Your task to perform on an android device: Add logitech g pro to the cart on costco.com, then select checkout. Image 0: 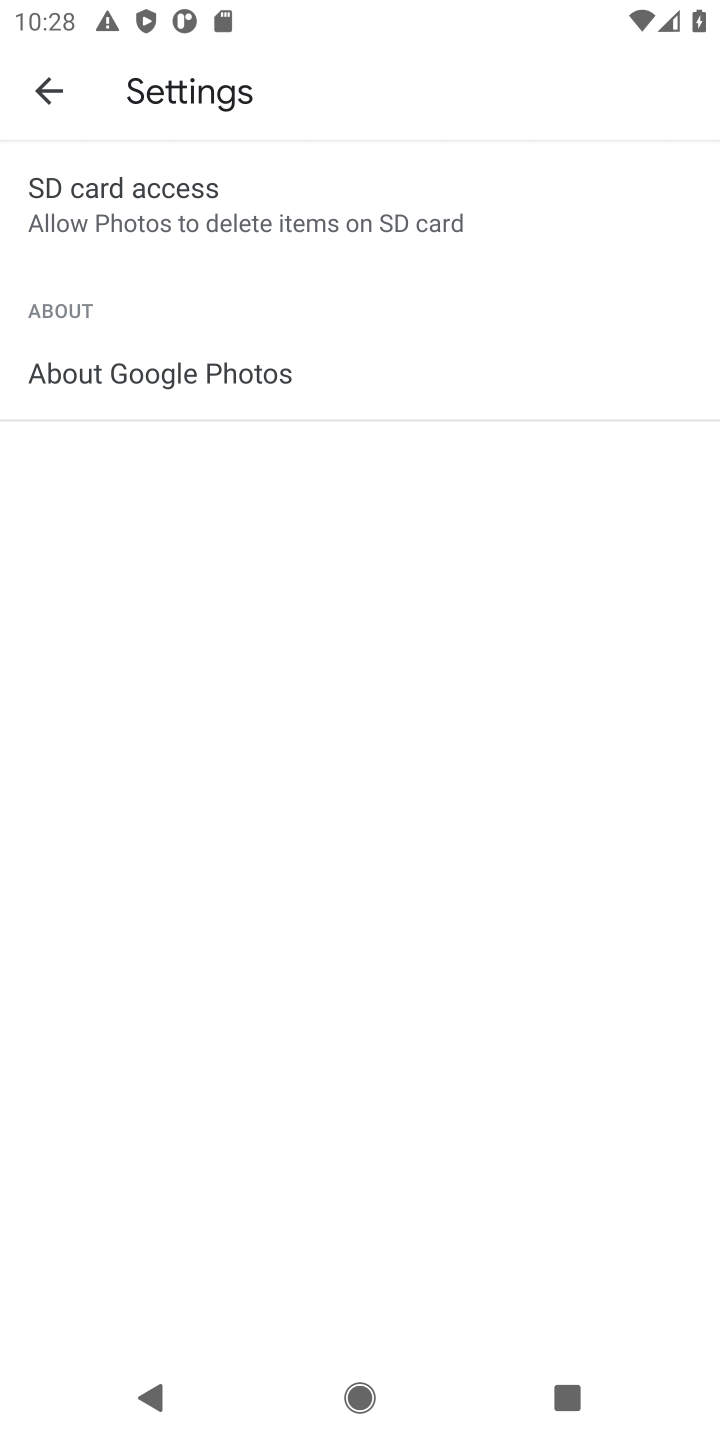
Step 0: press home button
Your task to perform on an android device: Add logitech g pro to the cart on costco.com, then select checkout. Image 1: 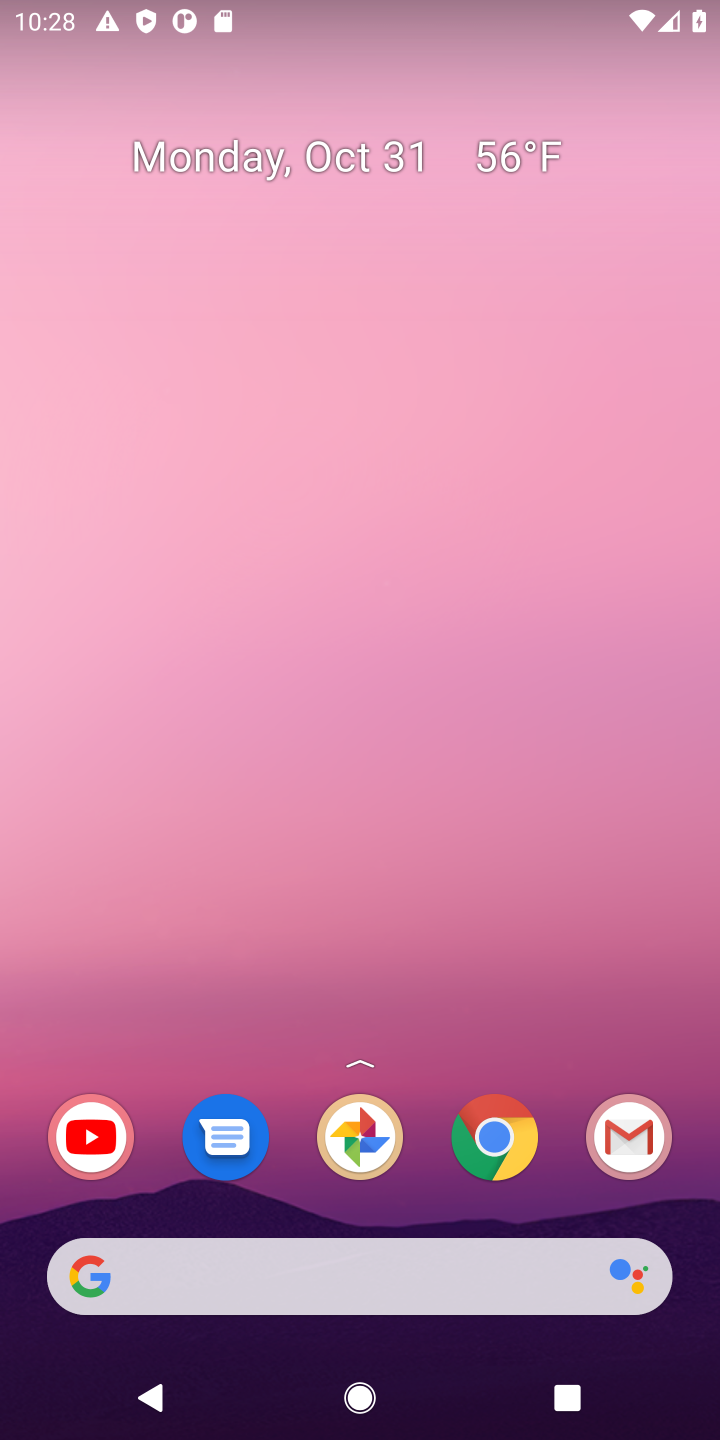
Step 1: click (496, 1140)
Your task to perform on an android device: Add logitech g pro to the cart on costco.com, then select checkout. Image 2: 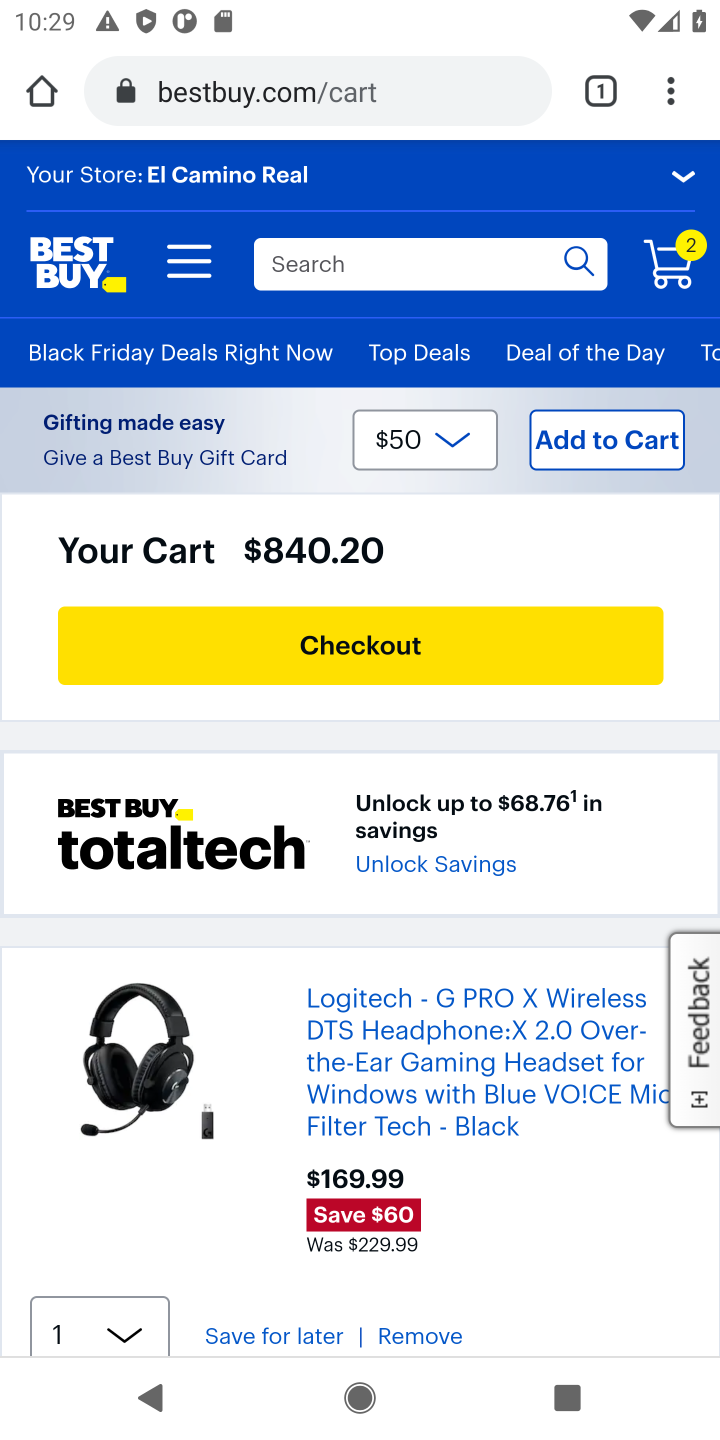
Step 2: click (313, 97)
Your task to perform on an android device: Add logitech g pro to the cart on costco.com, then select checkout. Image 3: 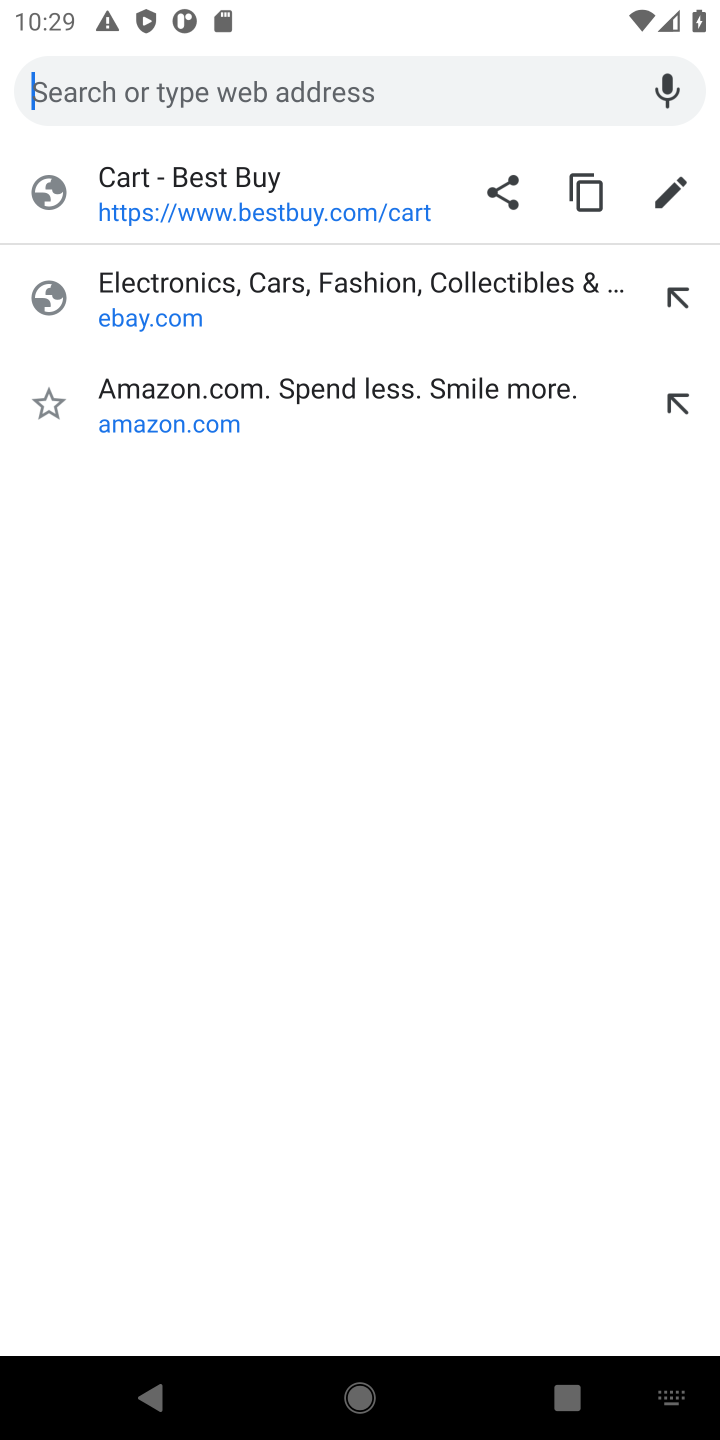
Step 3: type "costco.com"
Your task to perform on an android device: Add logitech g pro to the cart on costco.com, then select checkout. Image 4: 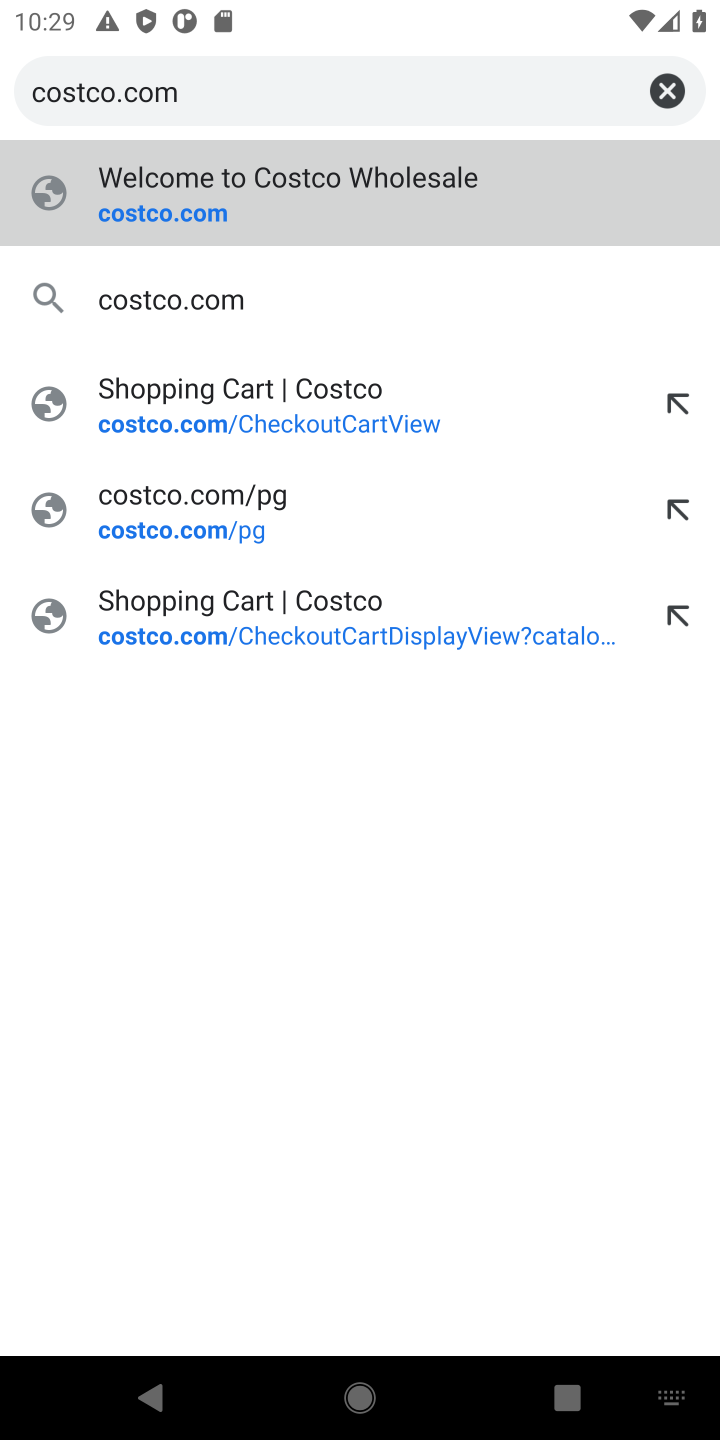
Step 4: click (216, 303)
Your task to perform on an android device: Add logitech g pro to the cart on costco.com, then select checkout. Image 5: 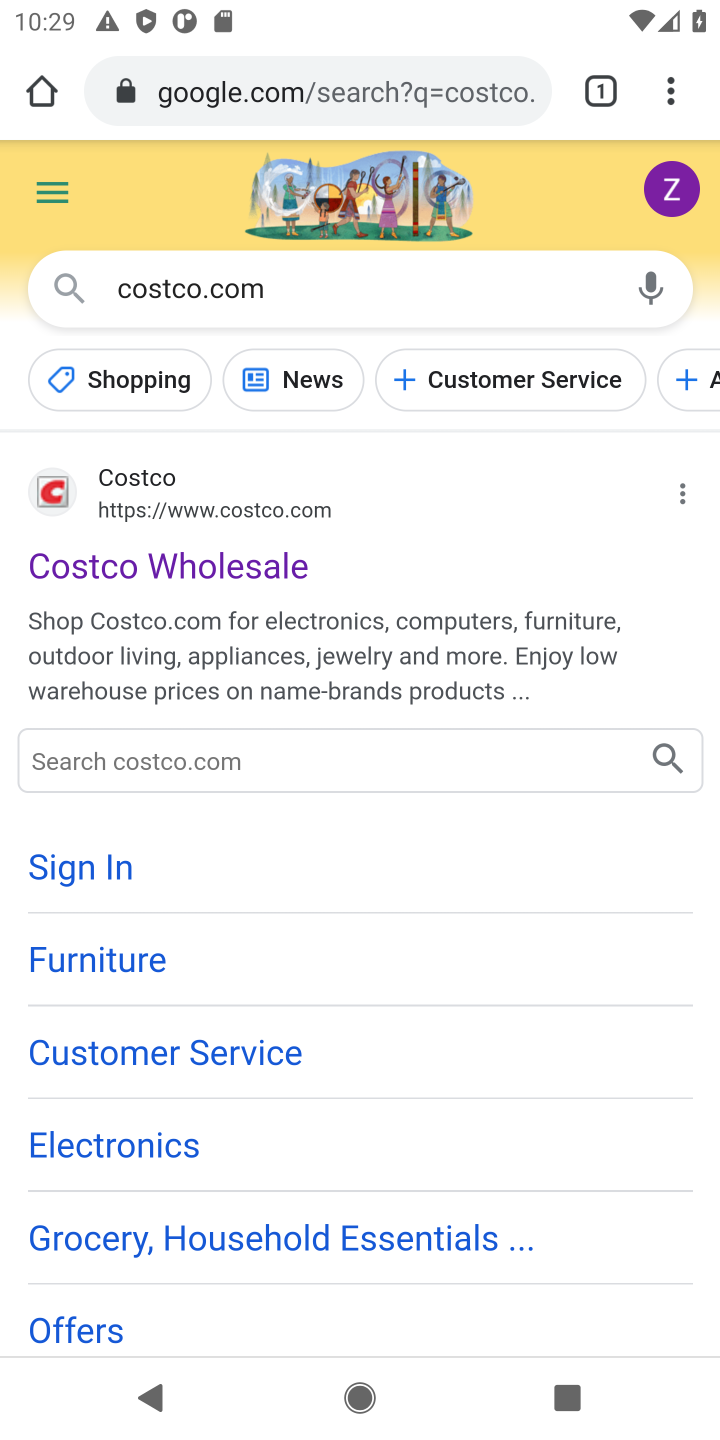
Step 5: click (262, 580)
Your task to perform on an android device: Add logitech g pro to the cart on costco.com, then select checkout. Image 6: 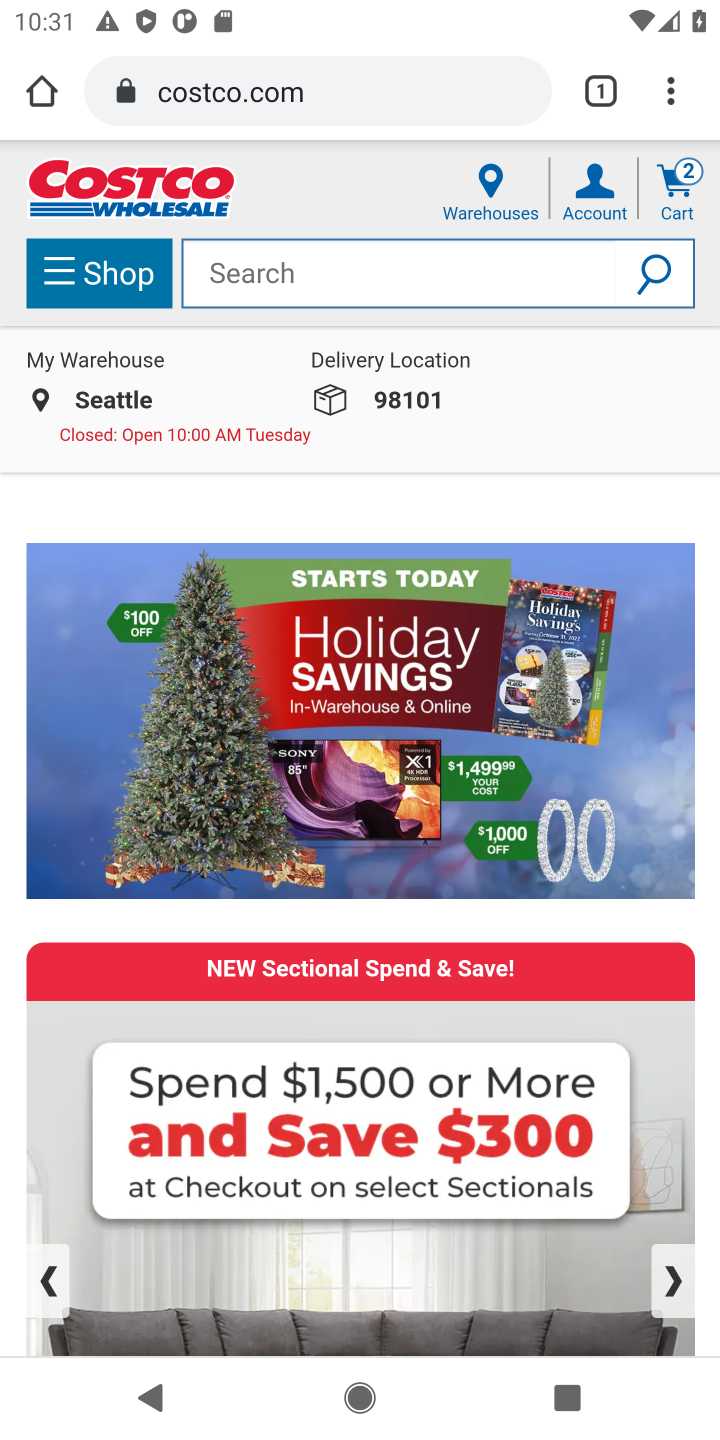
Step 6: click (464, 281)
Your task to perform on an android device: Add logitech g pro to the cart on costco.com, then select checkout. Image 7: 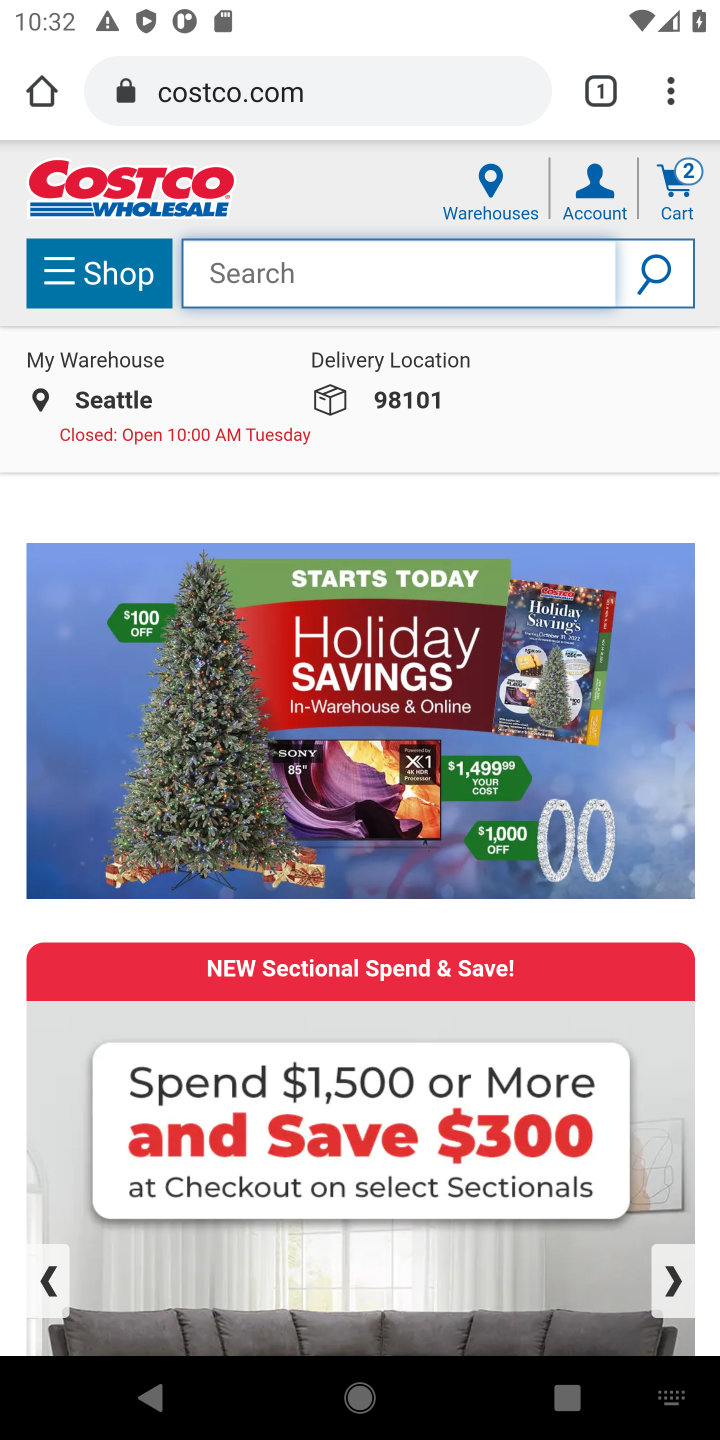
Step 7: type "logitech g pro "
Your task to perform on an android device: Add logitech g pro to the cart on costco.com, then select checkout. Image 8: 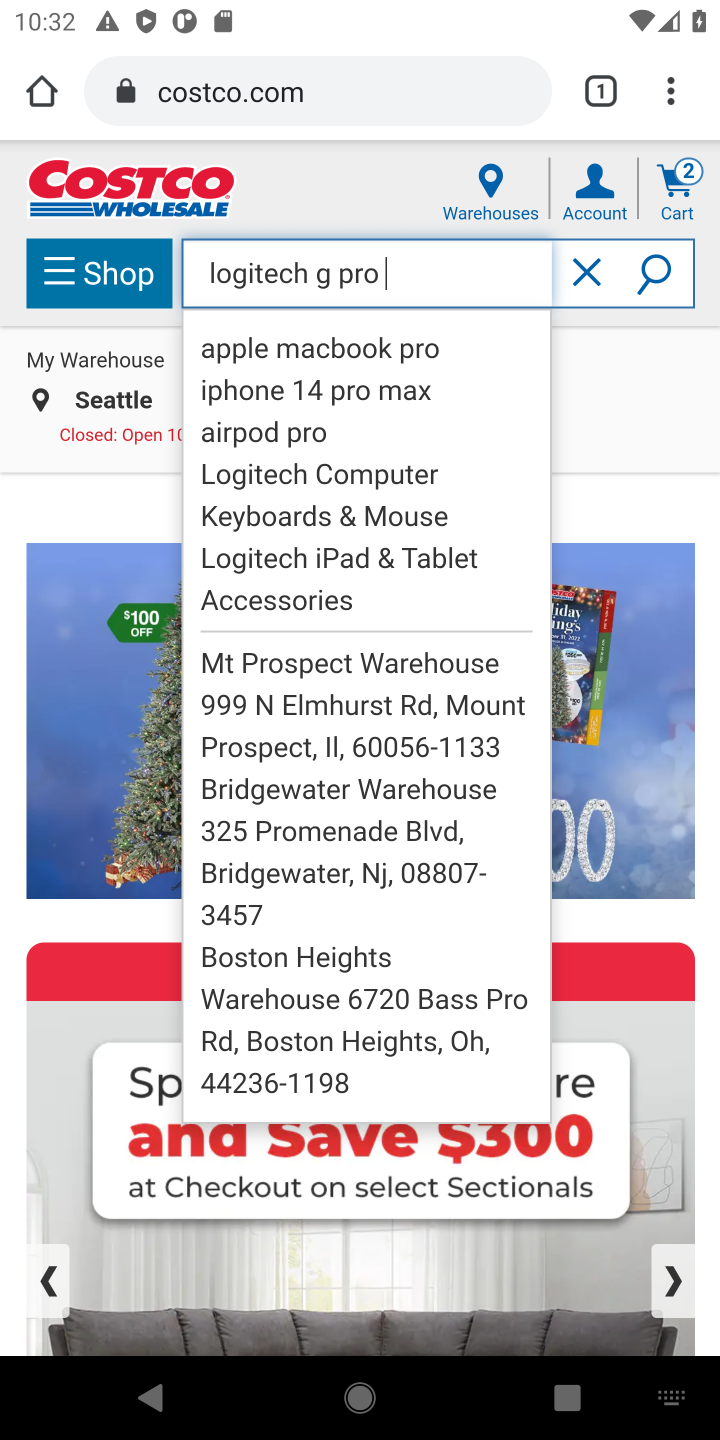
Step 8: type ""
Your task to perform on an android device: Add logitech g pro to the cart on costco.com, then select checkout. Image 9: 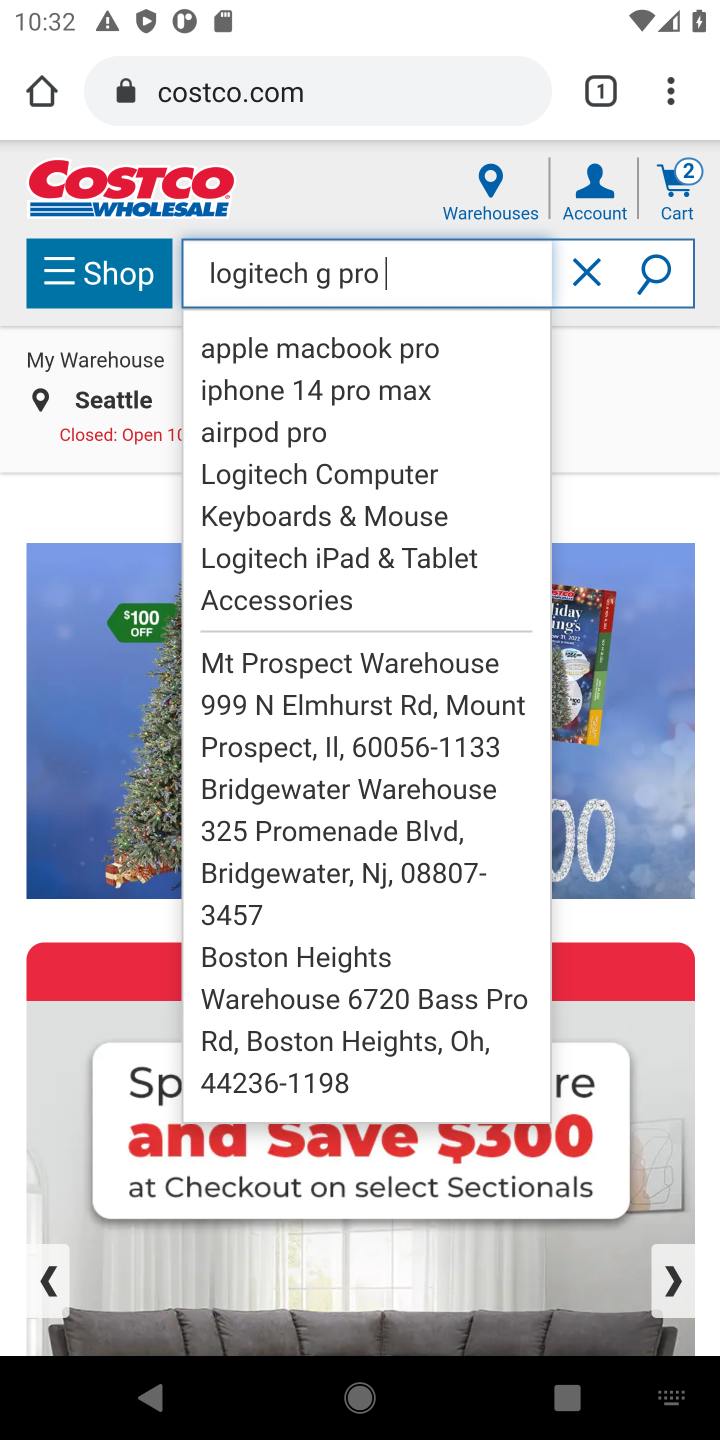
Step 9: type ""
Your task to perform on an android device: Add logitech g pro to the cart on costco.com, then select checkout. Image 10: 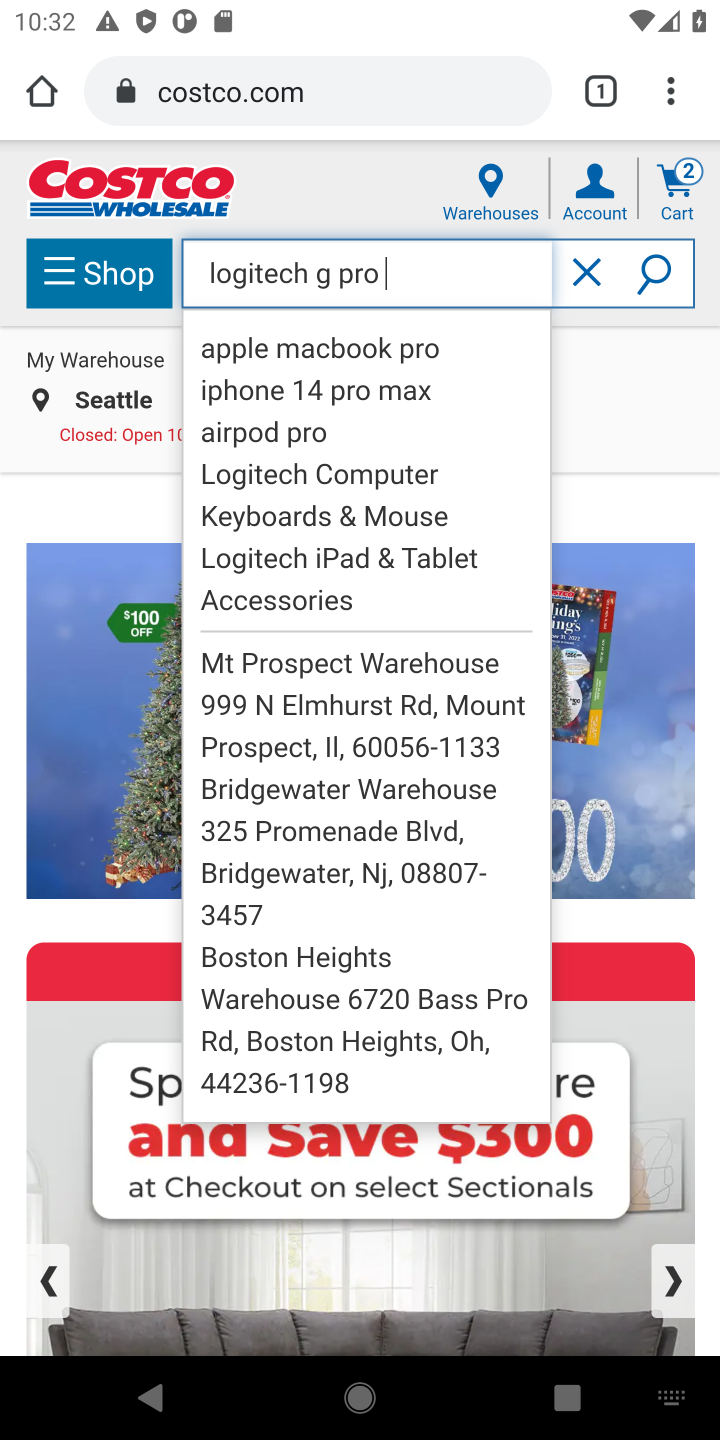
Step 10: click (645, 281)
Your task to perform on an android device: Add logitech g pro to the cart on costco.com, then select checkout. Image 11: 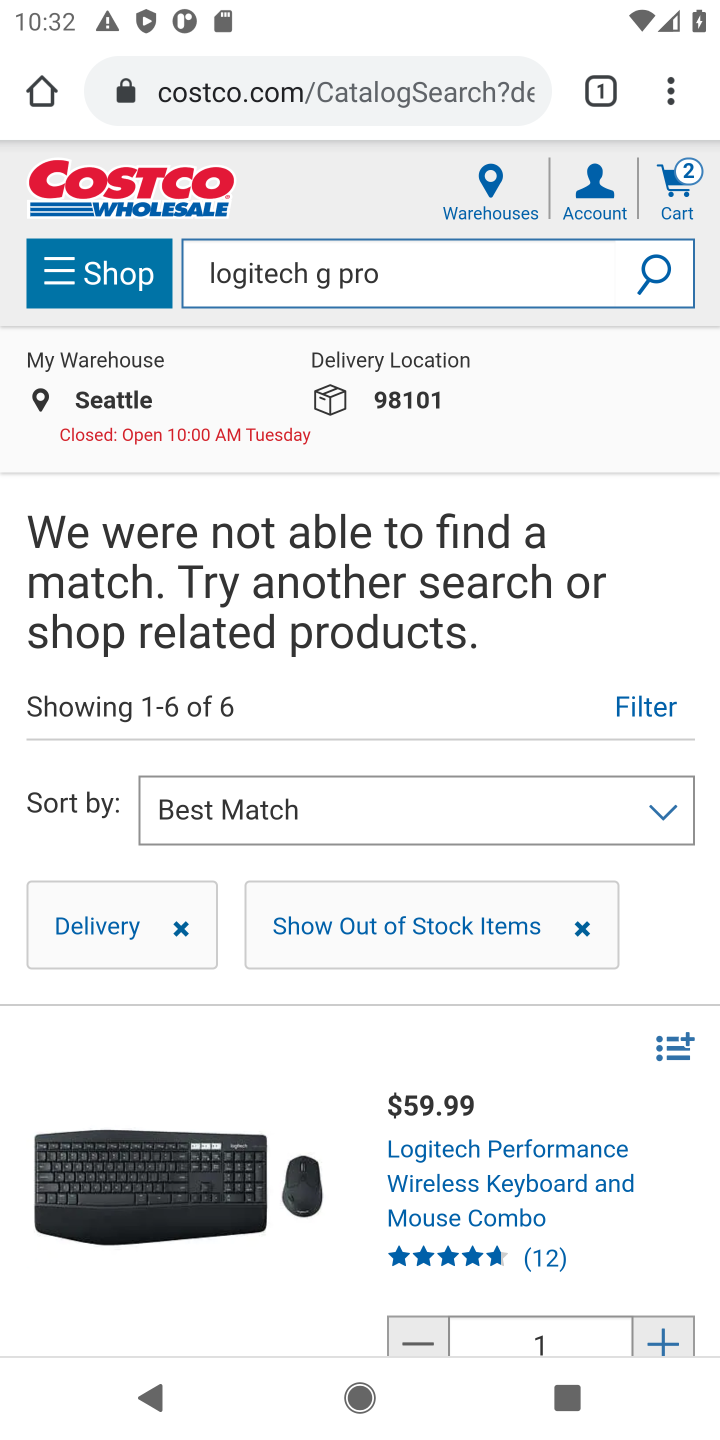
Step 11: task complete